Your task to perform on an android device: Check the weather Image 0: 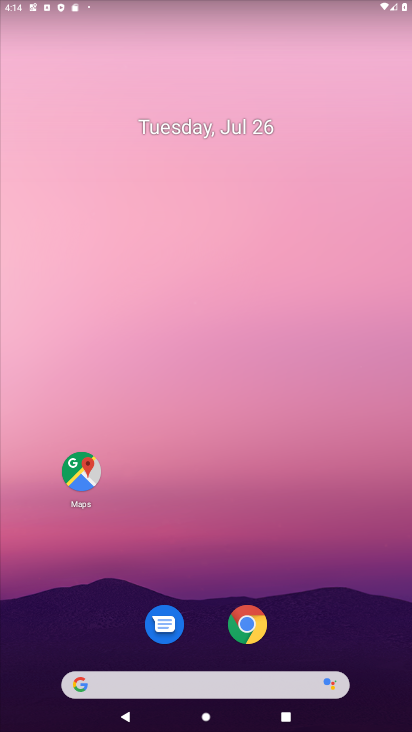
Step 0: drag from (194, 662) to (207, 16)
Your task to perform on an android device: Check the weather Image 1: 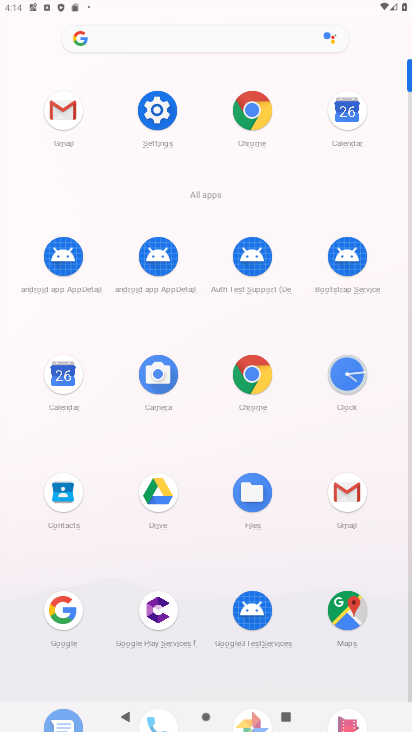
Step 1: click (258, 368)
Your task to perform on an android device: Check the weather Image 2: 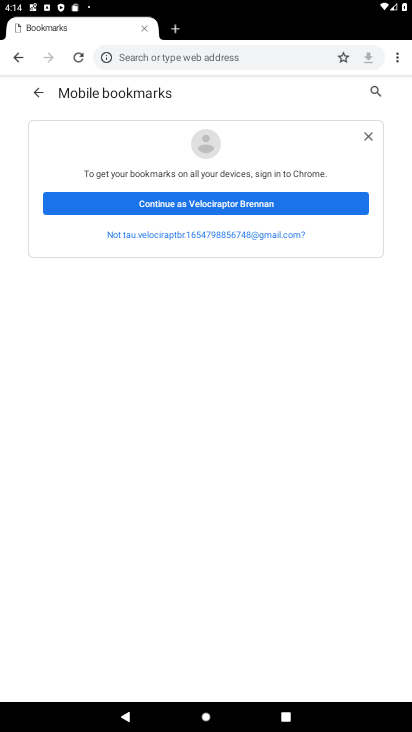
Step 2: click (264, 54)
Your task to perform on an android device: Check the weather Image 3: 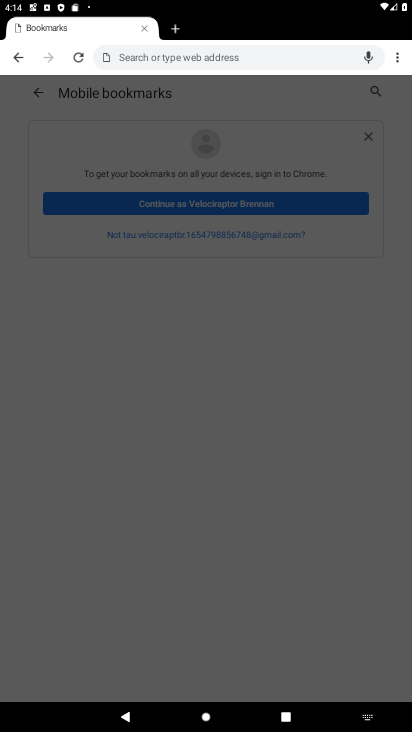
Step 3: type "check the weather"
Your task to perform on an android device: Check the weather Image 4: 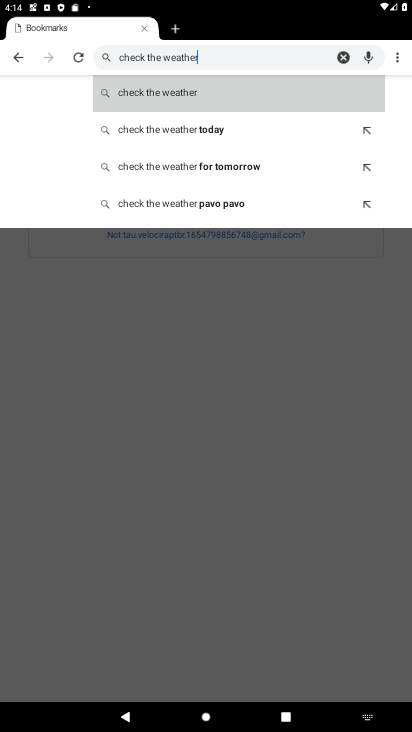
Step 4: click (317, 95)
Your task to perform on an android device: Check the weather Image 5: 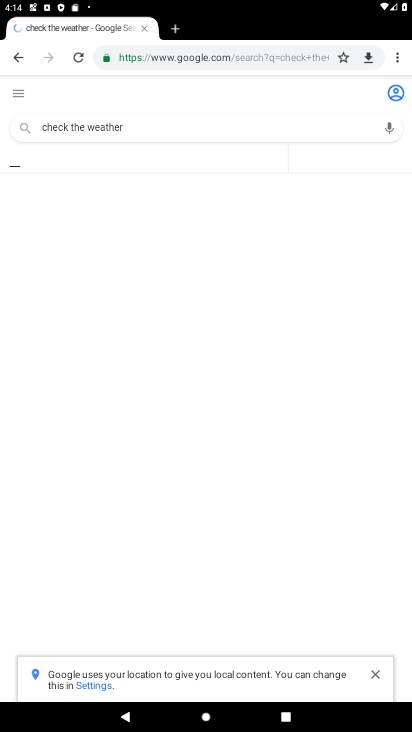
Step 5: task complete